Your task to perform on an android device: Search for "custom wallet" on Etsy. Image 0: 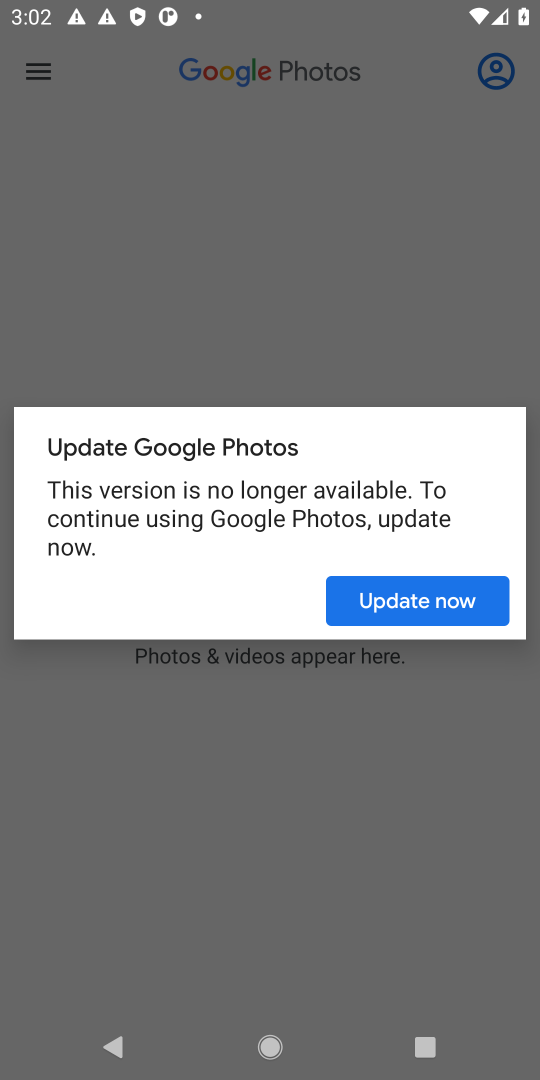
Step 0: press home button
Your task to perform on an android device: Search for "custom wallet" on Etsy. Image 1: 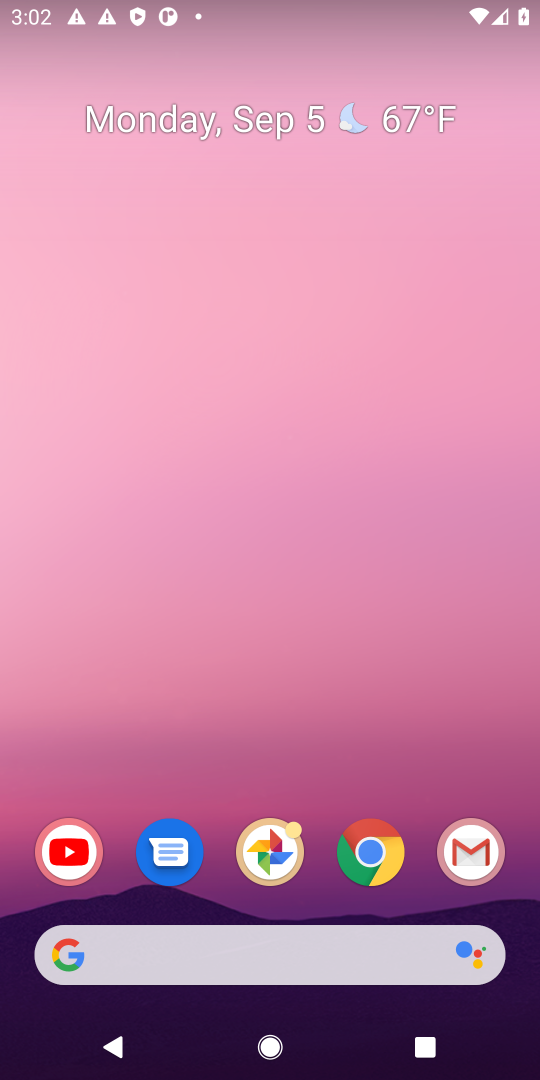
Step 1: click (371, 856)
Your task to perform on an android device: Search for "custom wallet" on Etsy. Image 2: 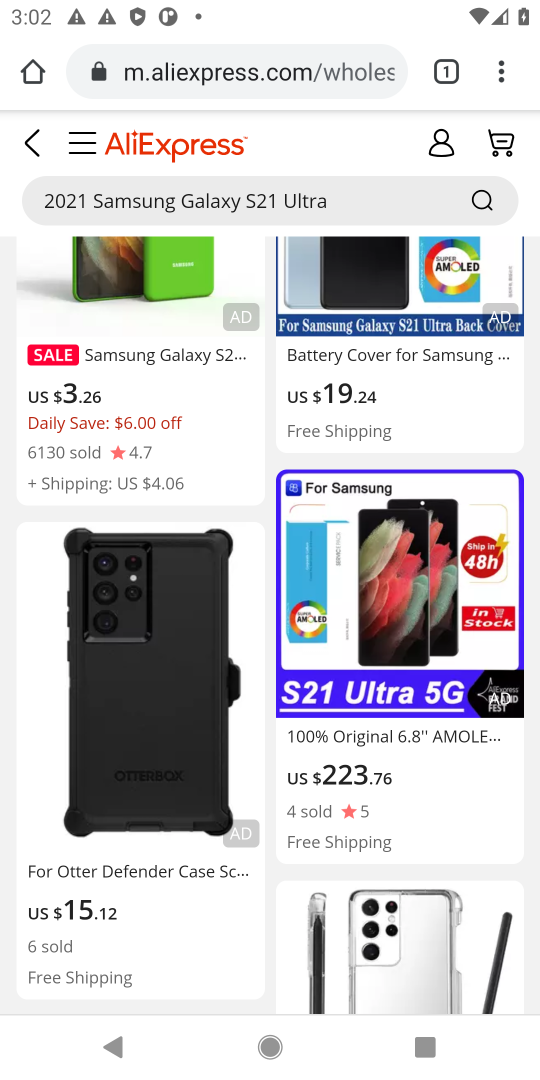
Step 2: click (290, 47)
Your task to perform on an android device: Search for "custom wallet" on Etsy. Image 3: 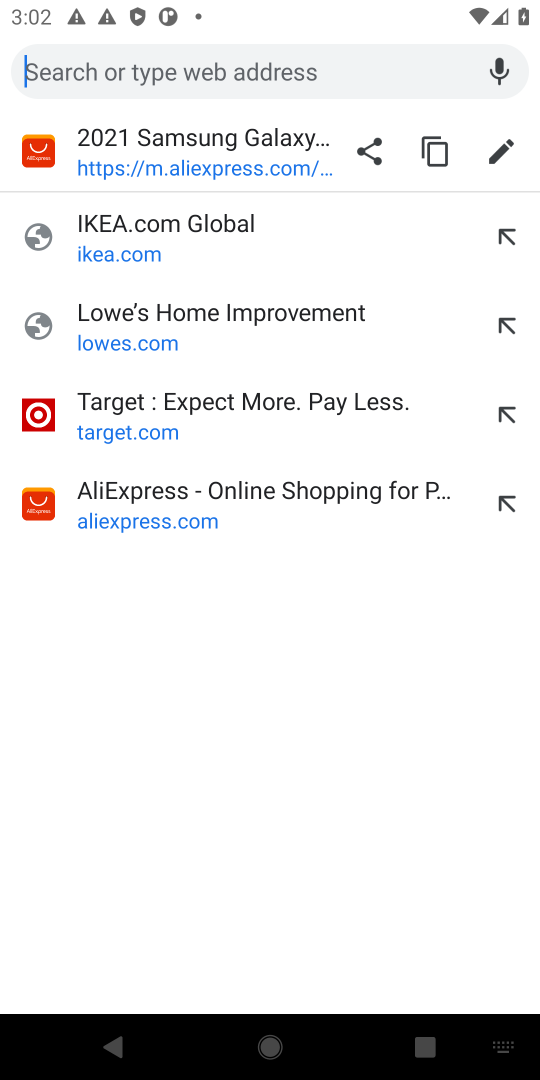
Step 3: type "Etsy"
Your task to perform on an android device: Search for "custom wallet" on Etsy. Image 4: 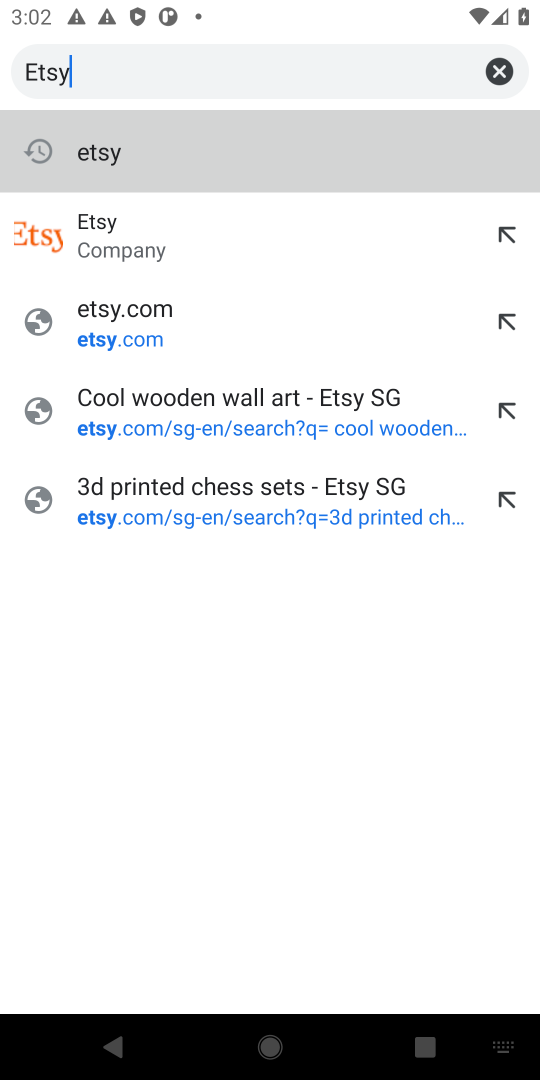
Step 4: click (95, 232)
Your task to perform on an android device: Search for "custom wallet" on Etsy. Image 5: 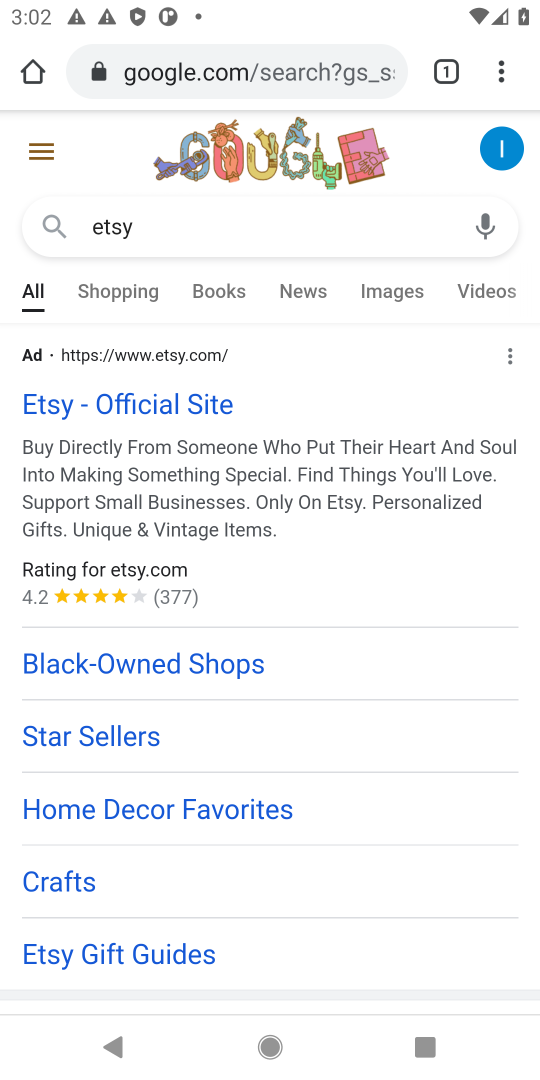
Step 5: click (112, 411)
Your task to perform on an android device: Search for "custom wallet" on Etsy. Image 6: 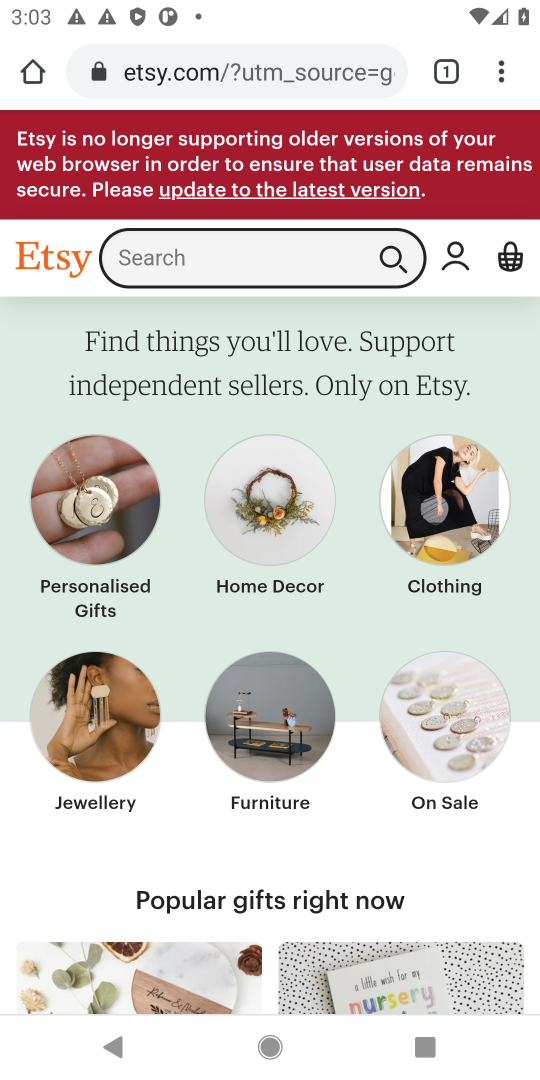
Step 6: click (159, 254)
Your task to perform on an android device: Search for "custom wallet" on Etsy. Image 7: 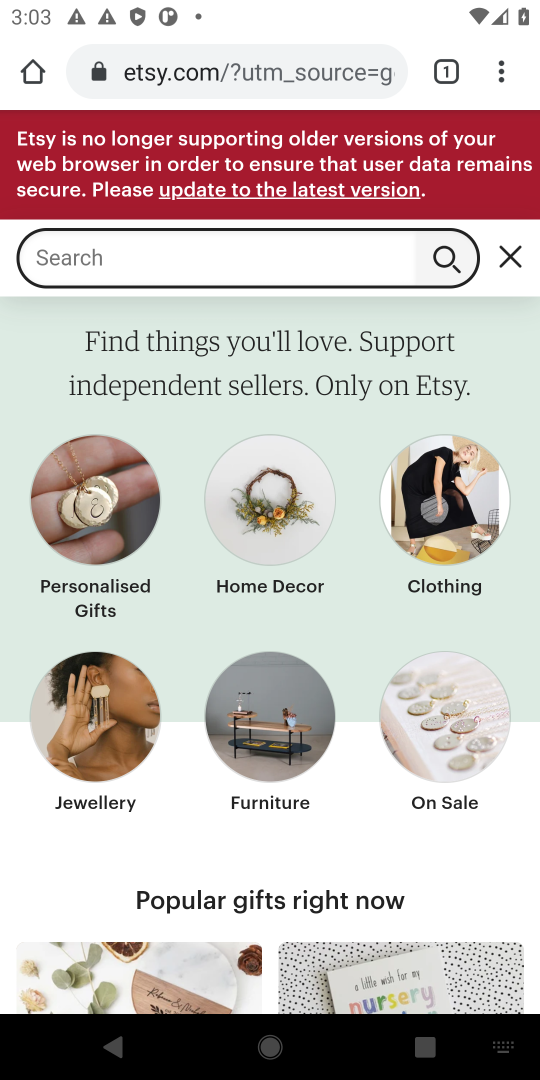
Step 7: type "custom wallet"
Your task to perform on an android device: Search for "custom wallet" on Etsy. Image 8: 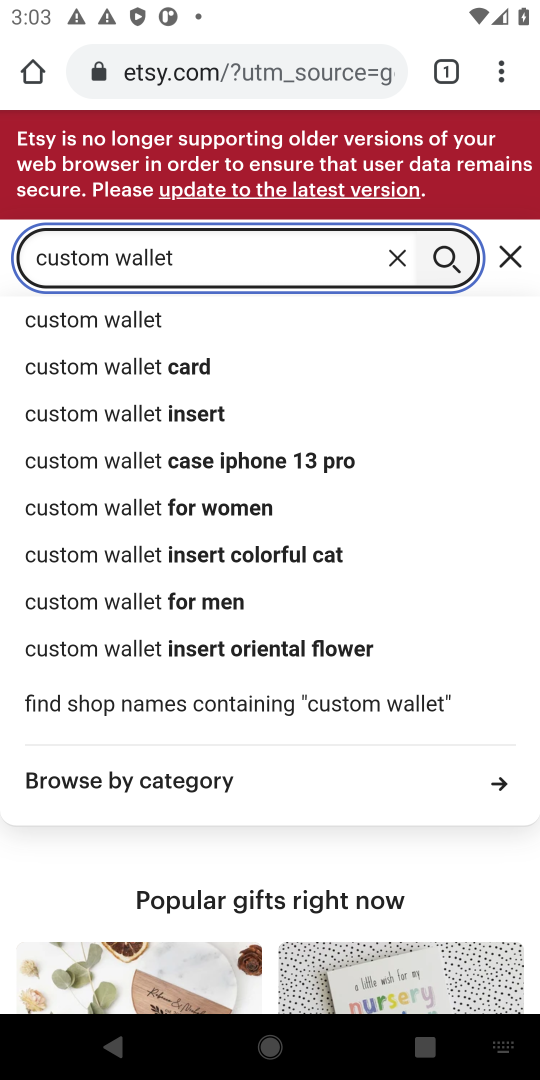
Step 8: click (86, 313)
Your task to perform on an android device: Search for "custom wallet" on Etsy. Image 9: 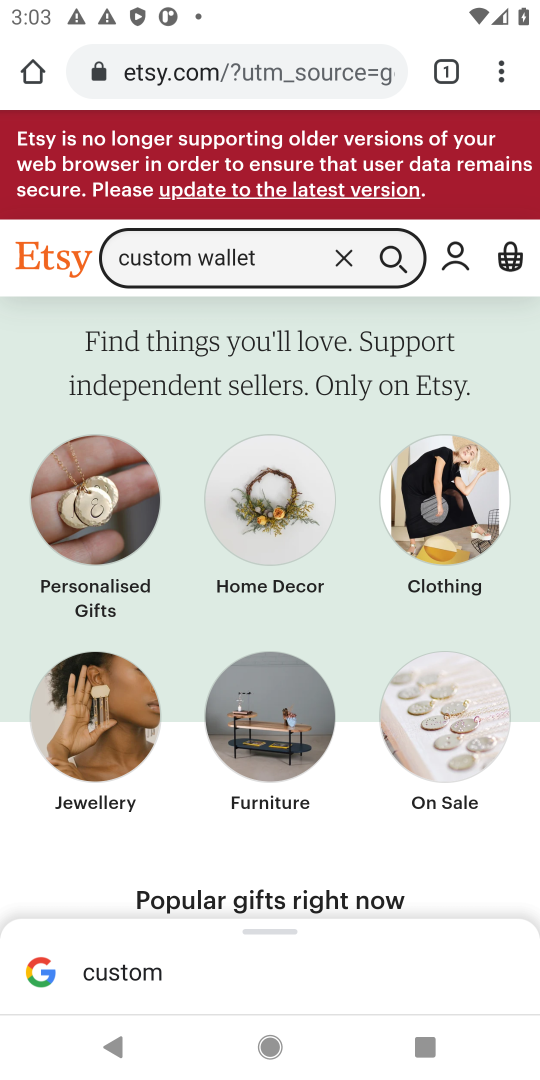
Step 9: click (394, 250)
Your task to perform on an android device: Search for "custom wallet" on Etsy. Image 10: 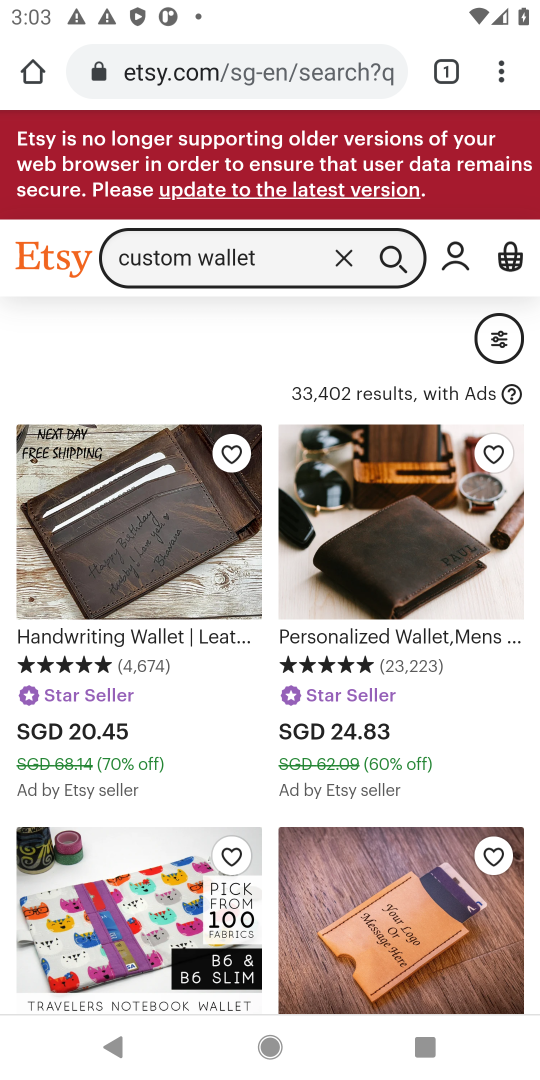
Step 10: task complete